Your task to perform on an android device: What's on my calendar tomorrow? Image 0: 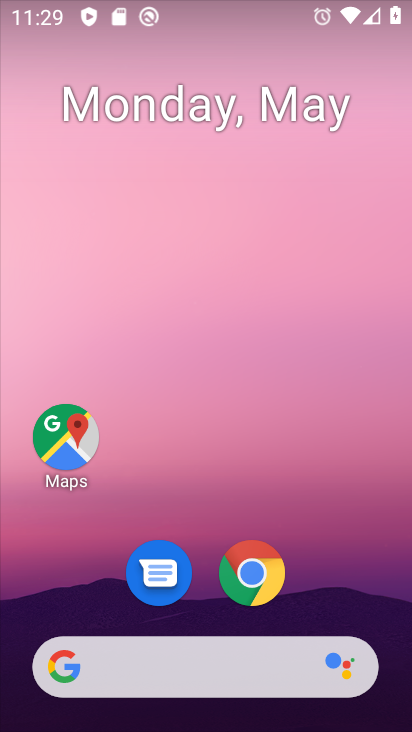
Step 0: drag from (145, 723) to (225, 1)
Your task to perform on an android device: What's on my calendar tomorrow? Image 1: 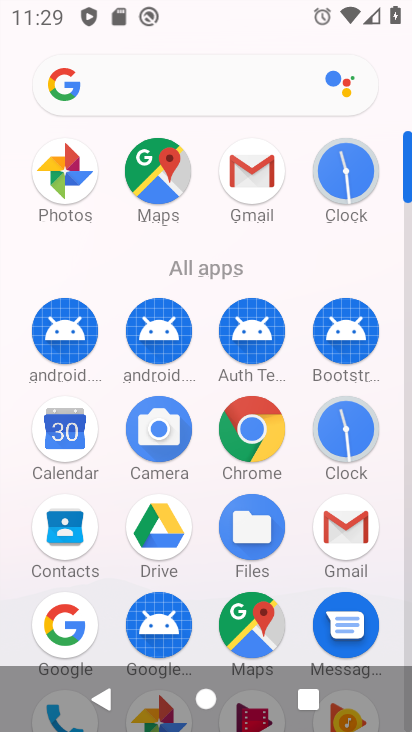
Step 1: click (62, 425)
Your task to perform on an android device: What's on my calendar tomorrow? Image 2: 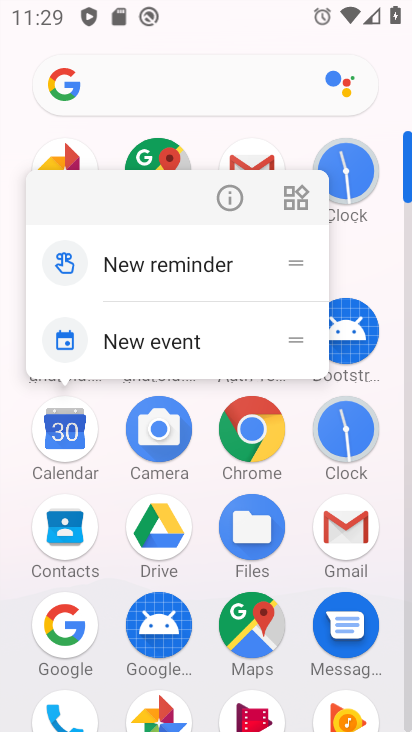
Step 2: click (64, 446)
Your task to perform on an android device: What's on my calendar tomorrow? Image 3: 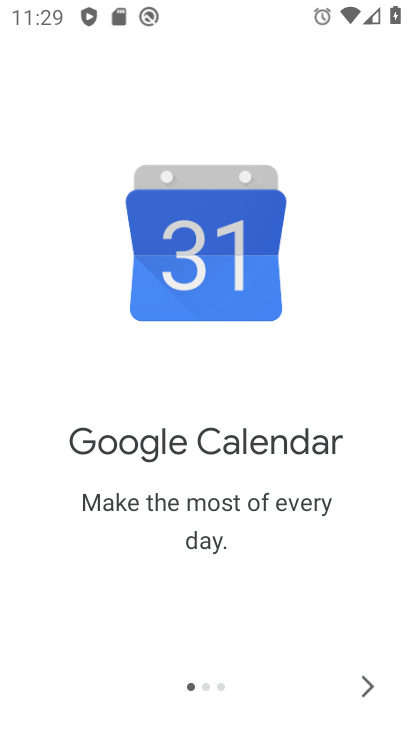
Step 3: click (353, 686)
Your task to perform on an android device: What's on my calendar tomorrow? Image 4: 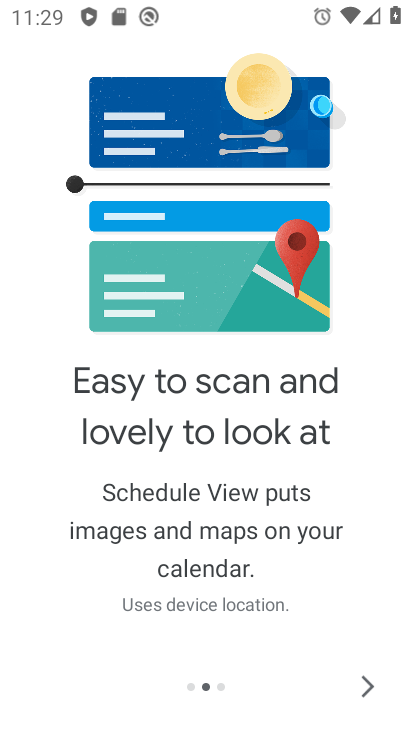
Step 4: click (353, 686)
Your task to perform on an android device: What's on my calendar tomorrow? Image 5: 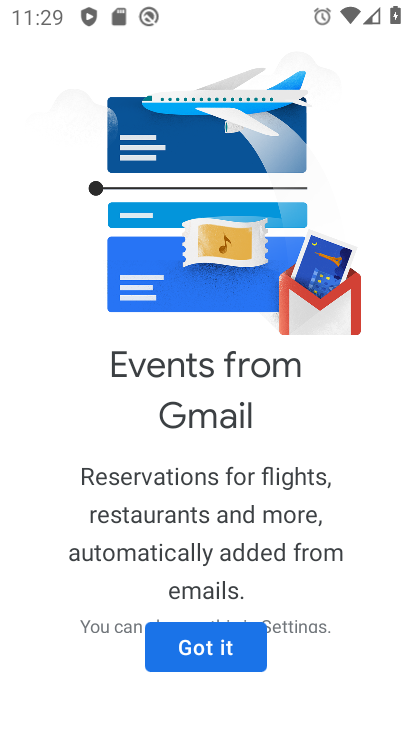
Step 5: click (223, 653)
Your task to perform on an android device: What's on my calendar tomorrow? Image 6: 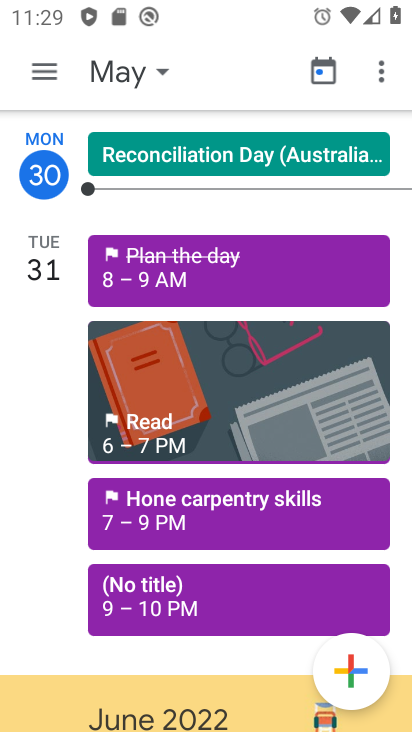
Step 6: click (212, 395)
Your task to perform on an android device: What's on my calendar tomorrow? Image 7: 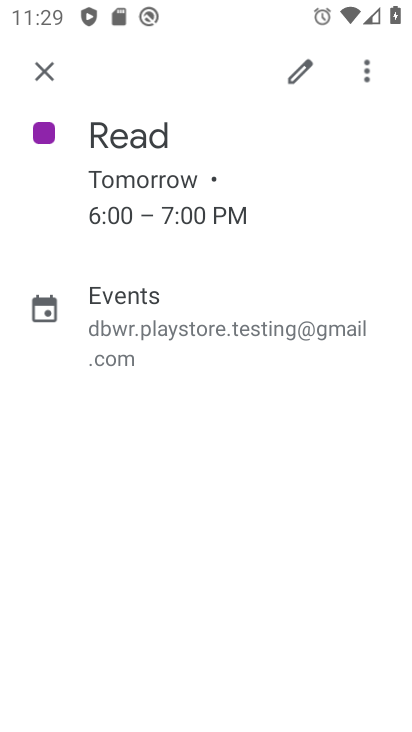
Step 7: task complete